Your task to perform on an android device: Go to wifi settings Image 0: 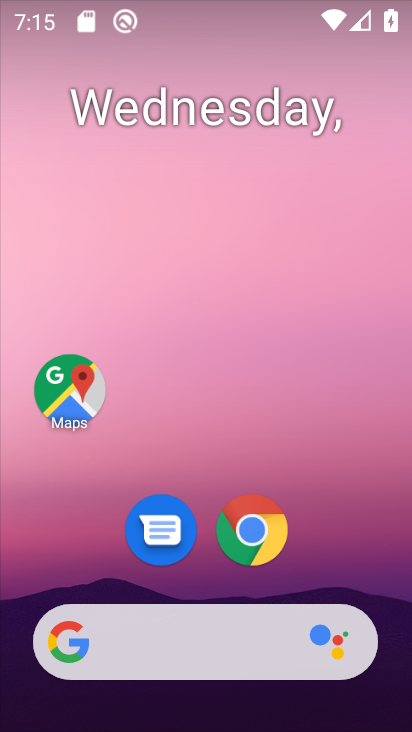
Step 0: drag from (392, 626) to (298, 43)
Your task to perform on an android device: Go to wifi settings Image 1: 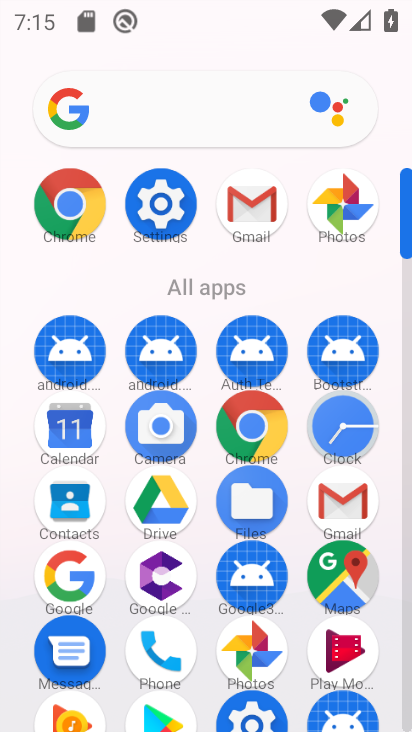
Step 1: click (239, 720)
Your task to perform on an android device: Go to wifi settings Image 2: 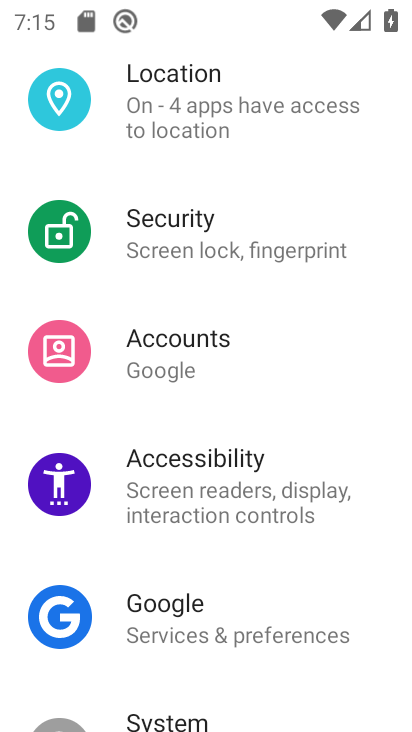
Step 2: drag from (224, 179) to (160, 655)
Your task to perform on an android device: Go to wifi settings Image 3: 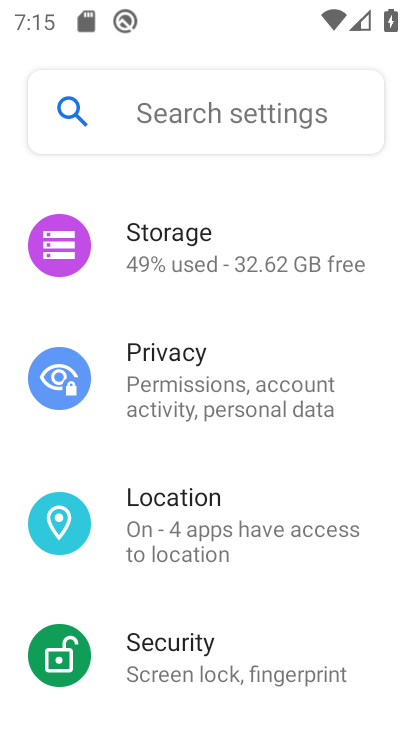
Step 3: drag from (127, 251) to (150, 686)
Your task to perform on an android device: Go to wifi settings Image 4: 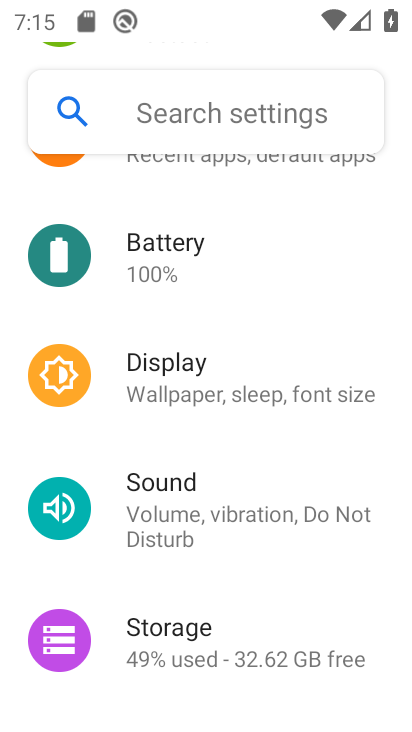
Step 4: drag from (151, 273) to (148, 703)
Your task to perform on an android device: Go to wifi settings Image 5: 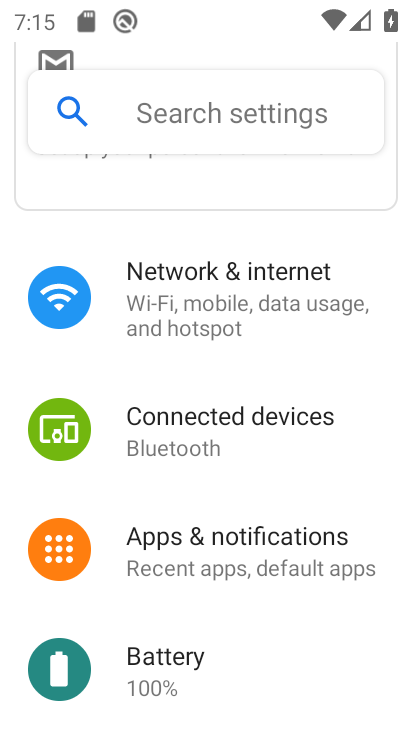
Step 5: click (144, 350)
Your task to perform on an android device: Go to wifi settings Image 6: 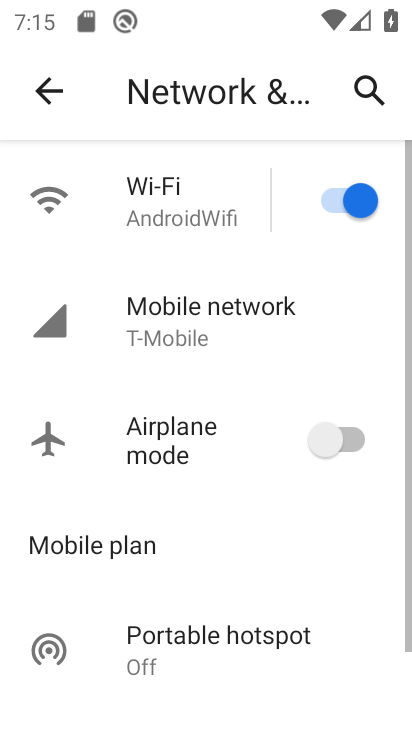
Step 6: click (214, 200)
Your task to perform on an android device: Go to wifi settings Image 7: 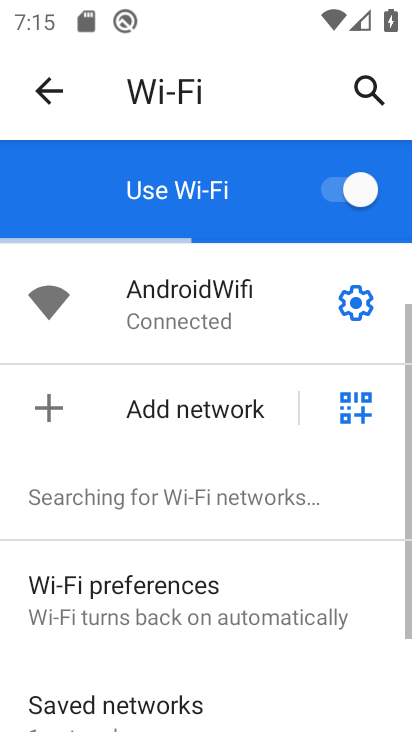
Step 7: task complete